Your task to perform on an android device: Open Google Maps Image 0: 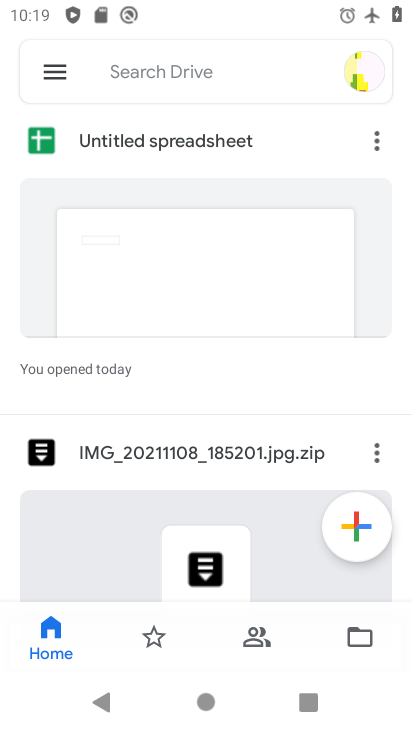
Step 0: press home button
Your task to perform on an android device: Open Google Maps Image 1: 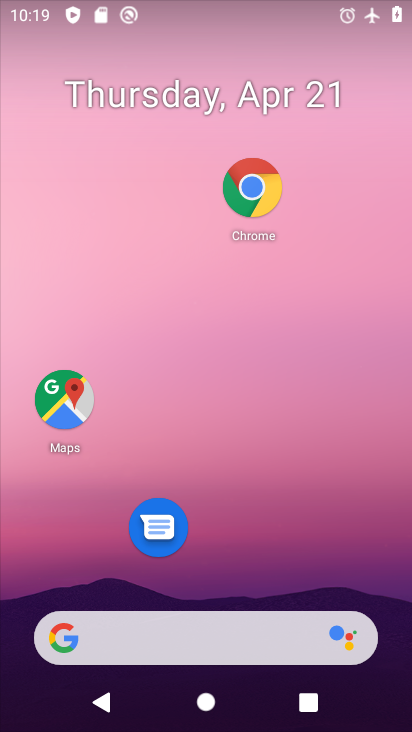
Step 1: drag from (210, 572) to (248, 237)
Your task to perform on an android device: Open Google Maps Image 2: 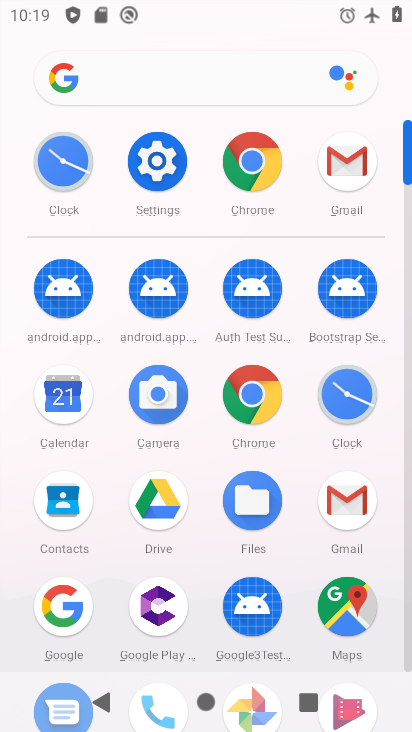
Step 2: click (344, 617)
Your task to perform on an android device: Open Google Maps Image 3: 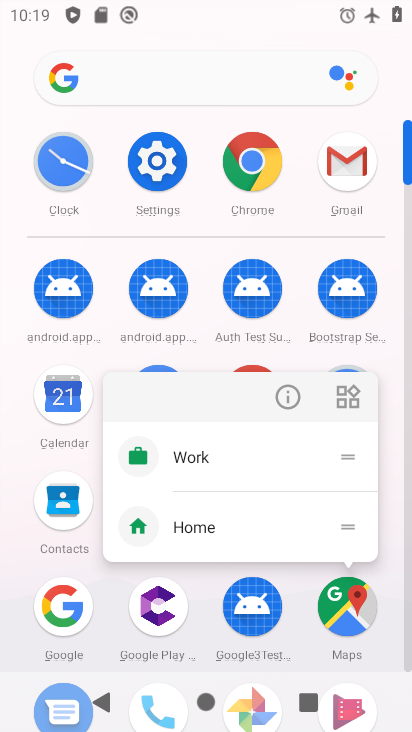
Step 3: click (356, 617)
Your task to perform on an android device: Open Google Maps Image 4: 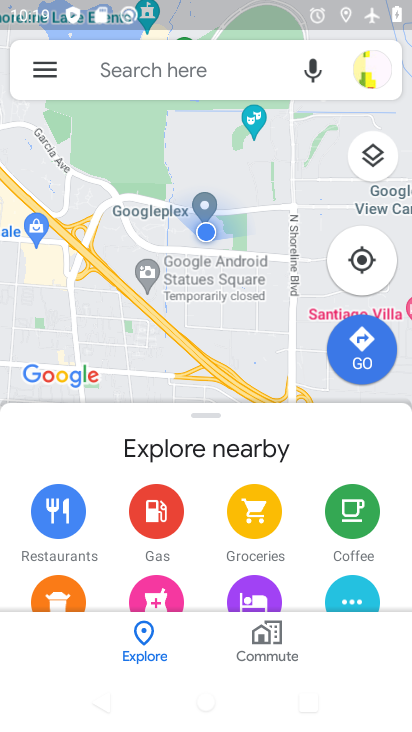
Step 4: task complete